Your task to perform on an android device: turn off picture-in-picture Image 0: 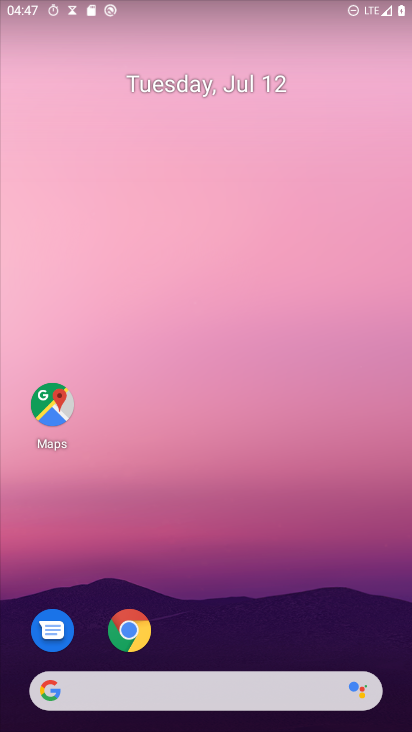
Step 0: drag from (174, 685) to (268, 15)
Your task to perform on an android device: turn off picture-in-picture Image 1: 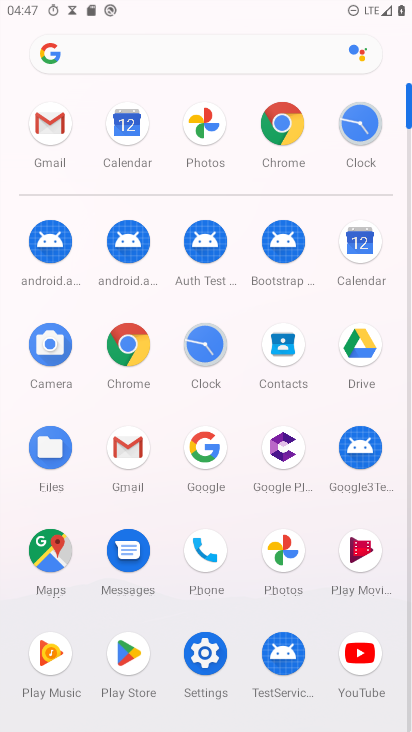
Step 1: click (209, 655)
Your task to perform on an android device: turn off picture-in-picture Image 2: 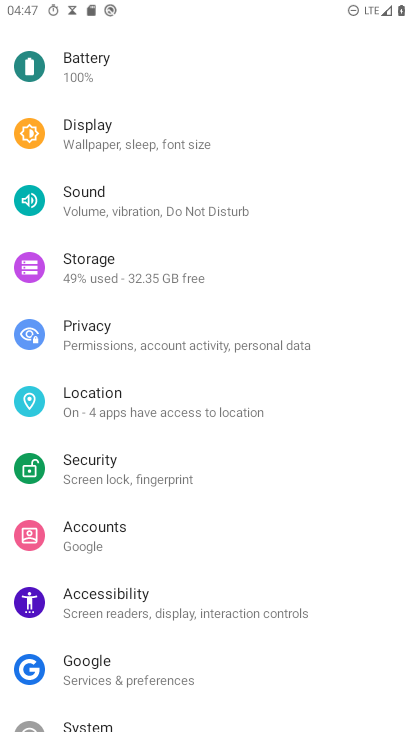
Step 2: drag from (174, 680) to (226, 77)
Your task to perform on an android device: turn off picture-in-picture Image 3: 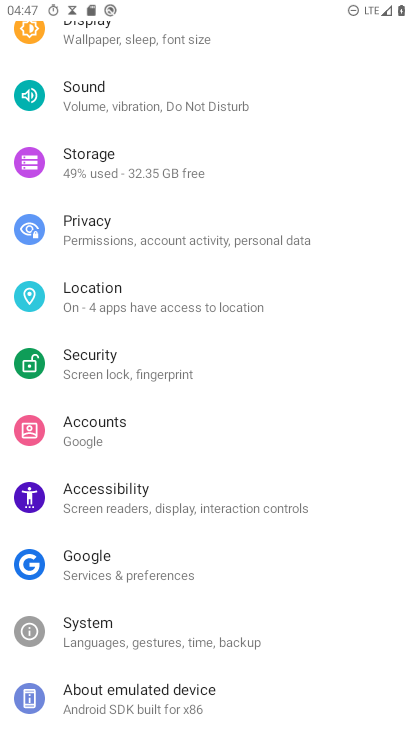
Step 3: drag from (120, 136) to (173, 648)
Your task to perform on an android device: turn off picture-in-picture Image 4: 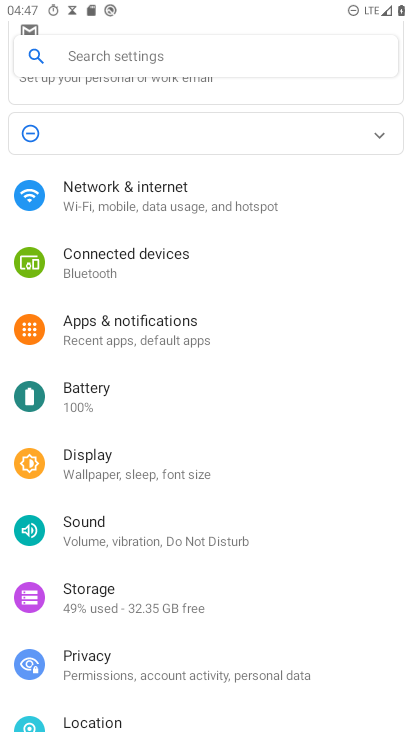
Step 4: click (164, 330)
Your task to perform on an android device: turn off picture-in-picture Image 5: 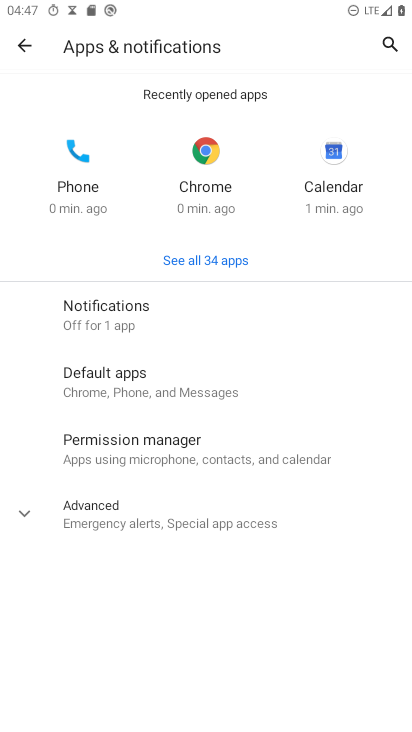
Step 5: click (168, 516)
Your task to perform on an android device: turn off picture-in-picture Image 6: 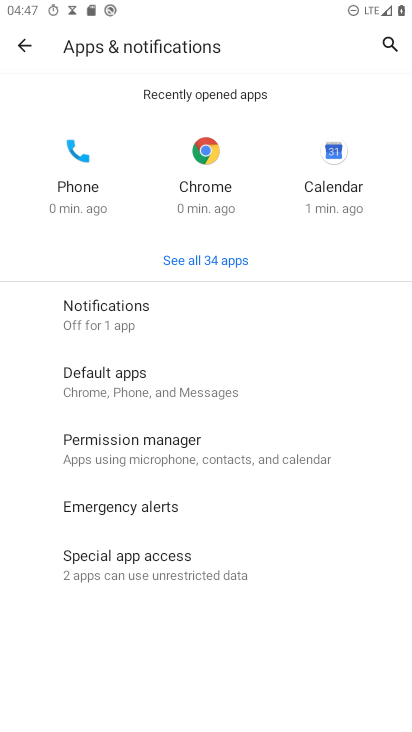
Step 6: click (153, 554)
Your task to perform on an android device: turn off picture-in-picture Image 7: 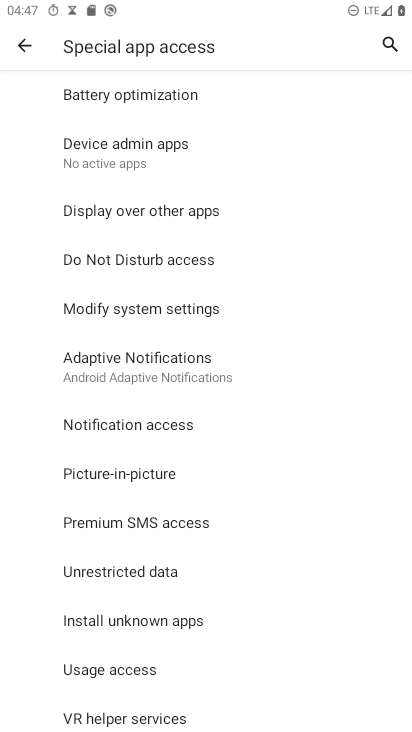
Step 7: drag from (162, 582) to (218, 215)
Your task to perform on an android device: turn off picture-in-picture Image 8: 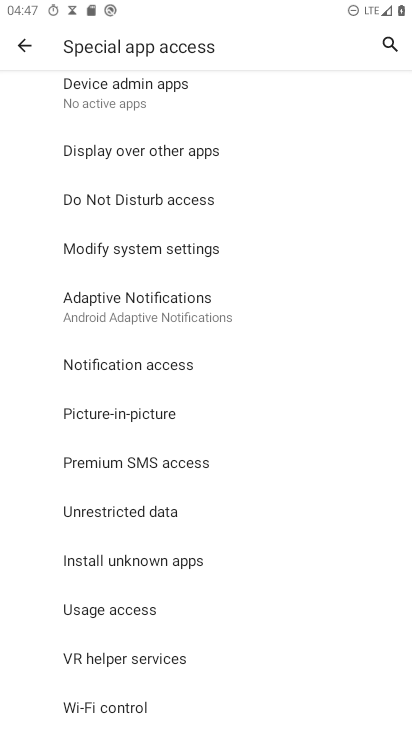
Step 8: click (150, 425)
Your task to perform on an android device: turn off picture-in-picture Image 9: 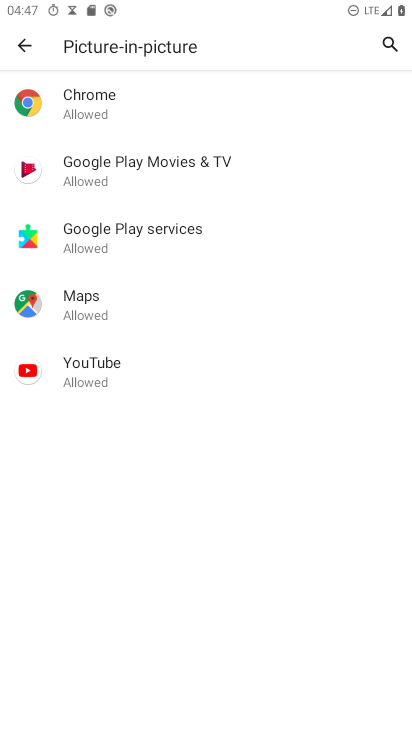
Step 9: click (103, 94)
Your task to perform on an android device: turn off picture-in-picture Image 10: 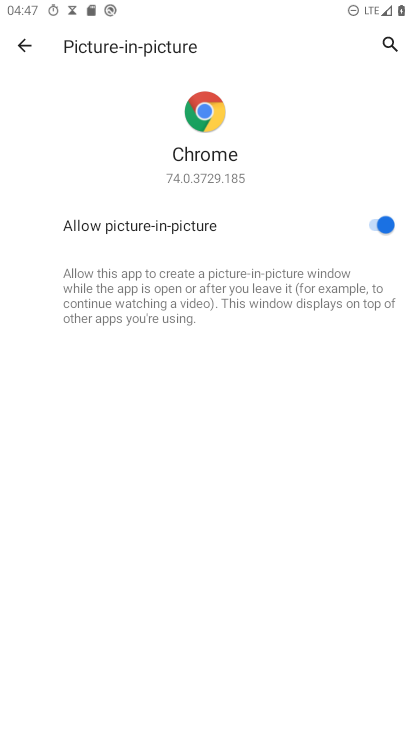
Step 10: click (373, 217)
Your task to perform on an android device: turn off picture-in-picture Image 11: 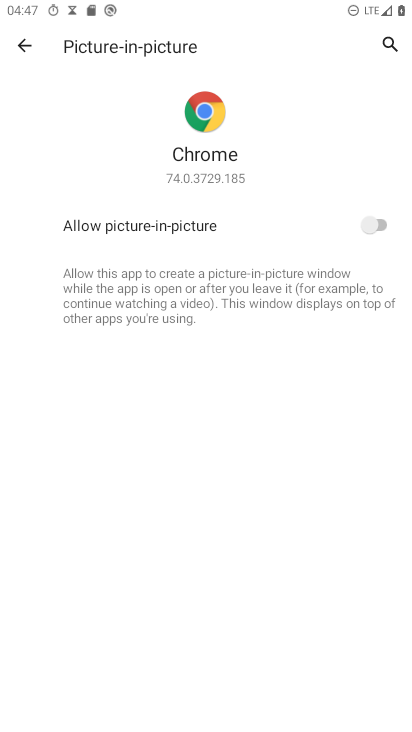
Step 11: press back button
Your task to perform on an android device: turn off picture-in-picture Image 12: 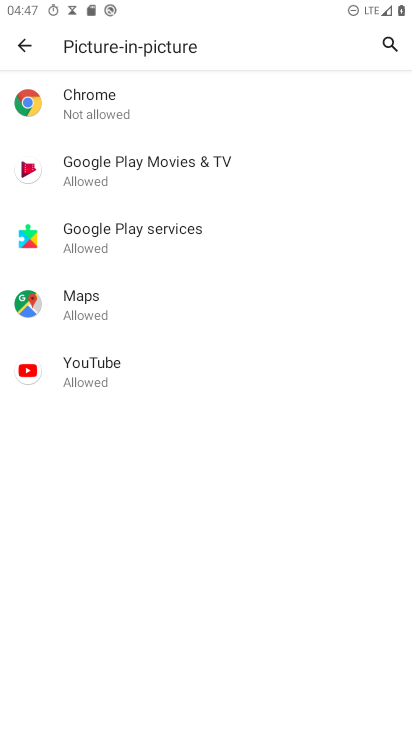
Step 12: click (147, 168)
Your task to perform on an android device: turn off picture-in-picture Image 13: 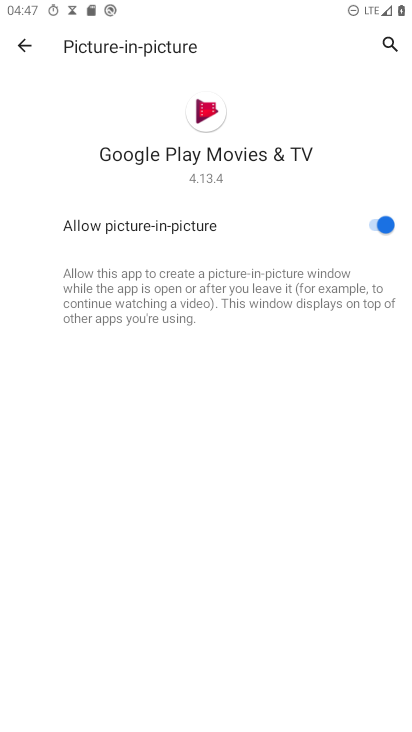
Step 13: click (374, 220)
Your task to perform on an android device: turn off picture-in-picture Image 14: 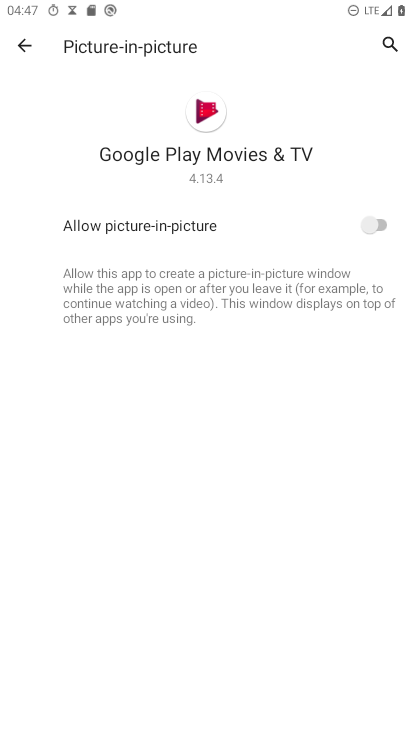
Step 14: press back button
Your task to perform on an android device: turn off picture-in-picture Image 15: 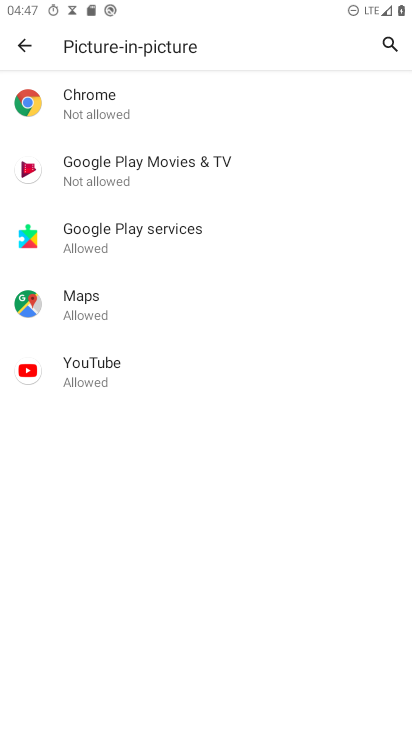
Step 15: click (128, 242)
Your task to perform on an android device: turn off picture-in-picture Image 16: 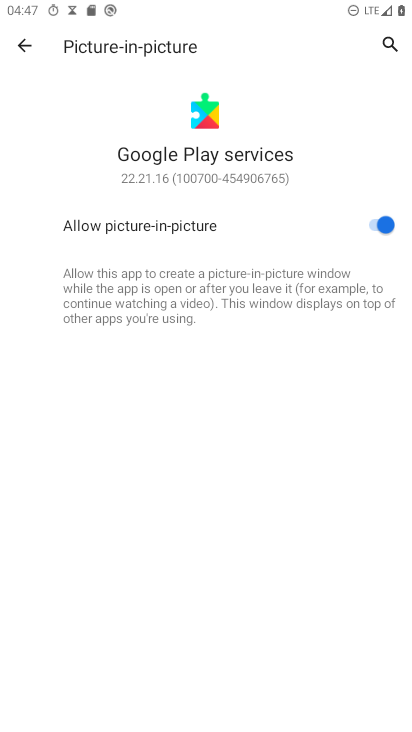
Step 16: click (376, 227)
Your task to perform on an android device: turn off picture-in-picture Image 17: 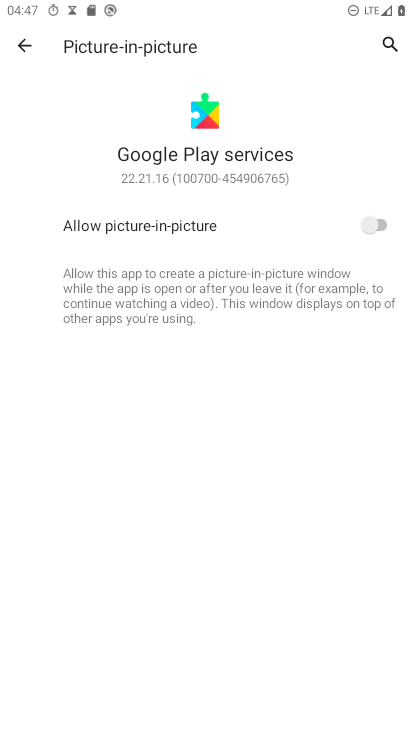
Step 17: press back button
Your task to perform on an android device: turn off picture-in-picture Image 18: 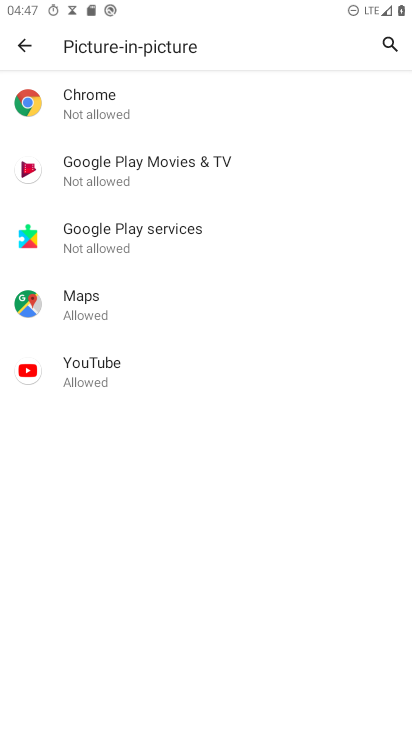
Step 18: click (172, 311)
Your task to perform on an android device: turn off picture-in-picture Image 19: 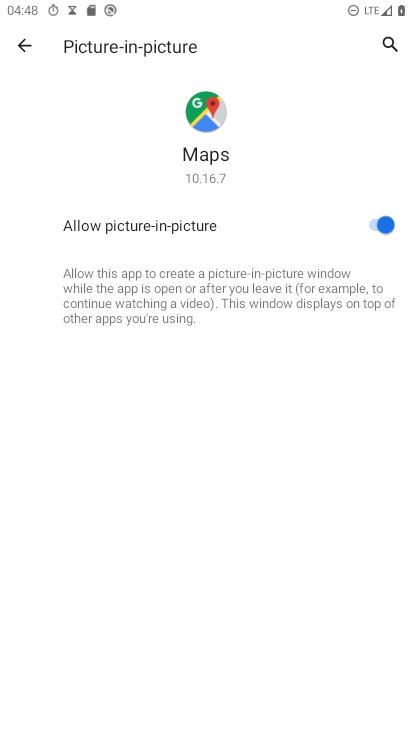
Step 19: click (382, 229)
Your task to perform on an android device: turn off picture-in-picture Image 20: 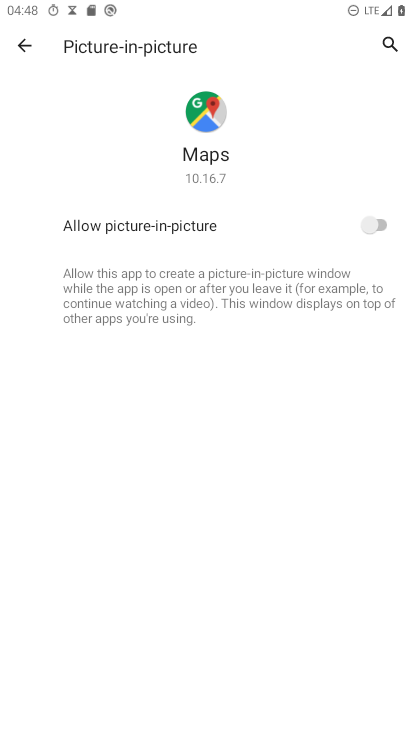
Step 20: press back button
Your task to perform on an android device: turn off picture-in-picture Image 21: 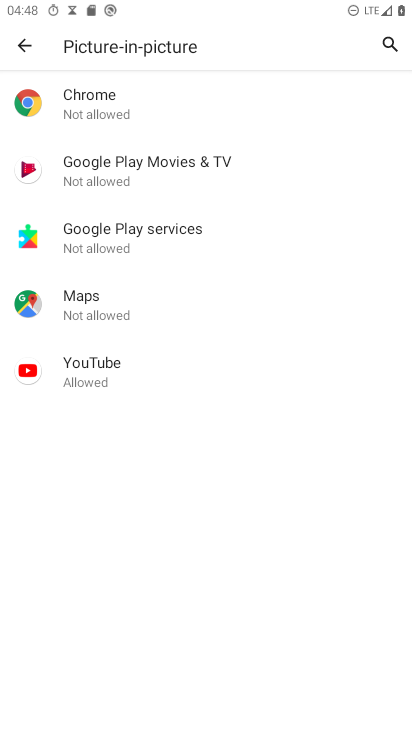
Step 21: click (156, 387)
Your task to perform on an android device: turn off picture-in-picture Image 22: 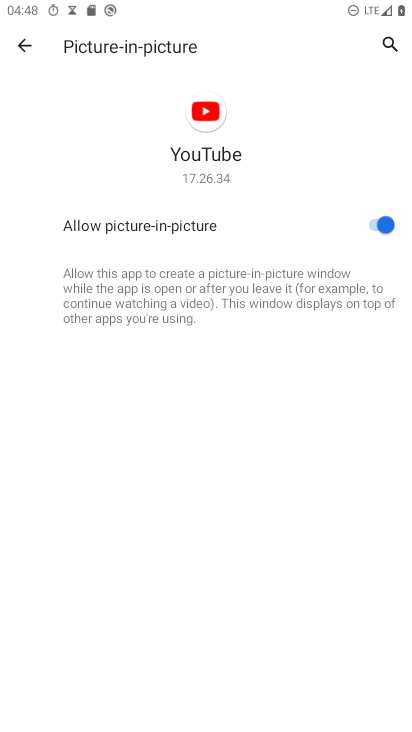
Step 22: click (377, 222)
Your task to perform on an android device: turn off picture-in-picture Image 23: 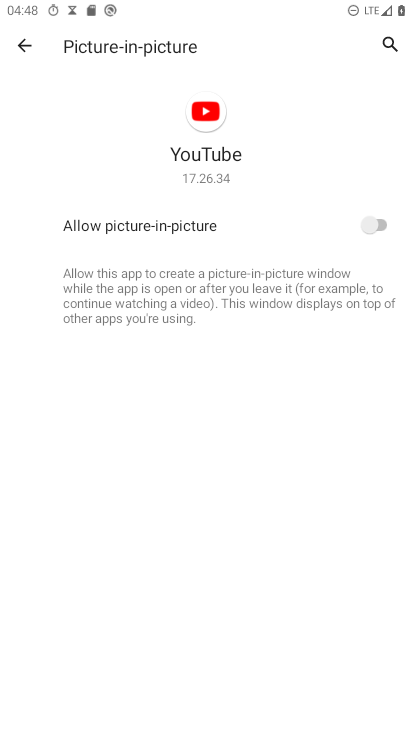
Step 23: task complete